Your task to perform on an android device: turn off smart reply in the gmail app Image 0: 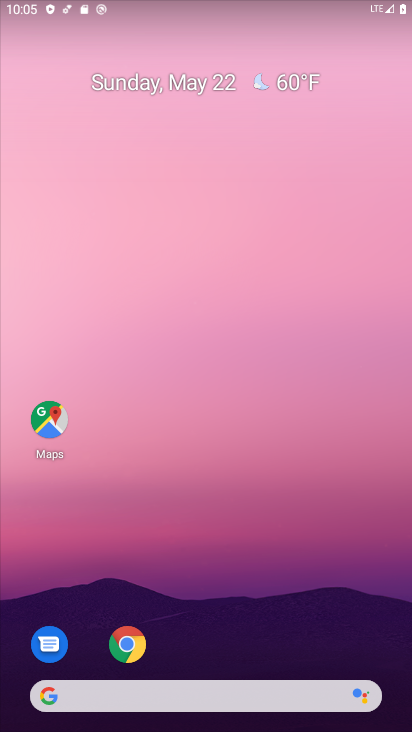
Step 0: drag from (166, 658) to (161, 274)
Your task to perform on an android device: turn off smart reply in the gmail app Image 1: 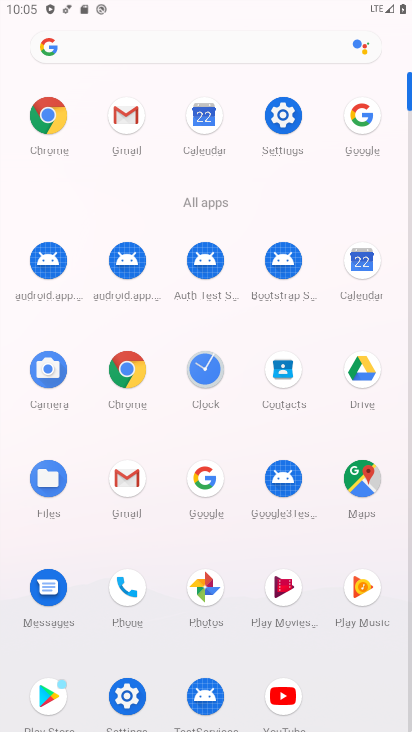
Step 1: click (136, 495)
Your task to perform on an android device: turn off smart reply in the gmail app Image 2: 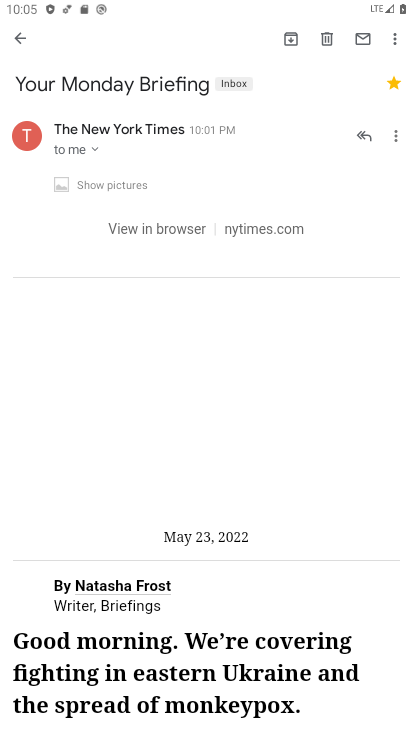
Step 2: click (17, 43)
Your task to perform on an android device: turn off smart reply in the gmail app Image 3: 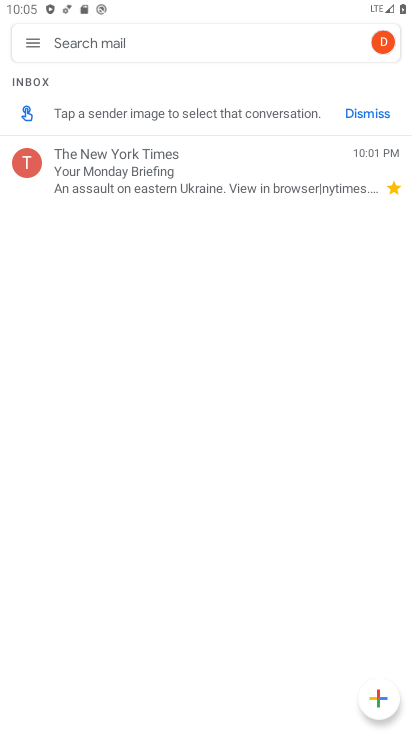
Step 3: click (29, 47)
Your task to perform on an android device: turn off smart reply in the gmail app Image 4: 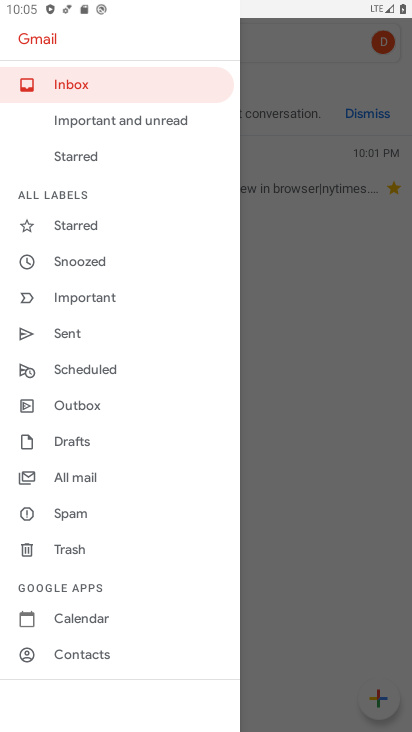
Step 4: drag from (83, 670) to (96, 219)
Your task to perform on an android device: turn off smart reply in the gmail app Image 5: 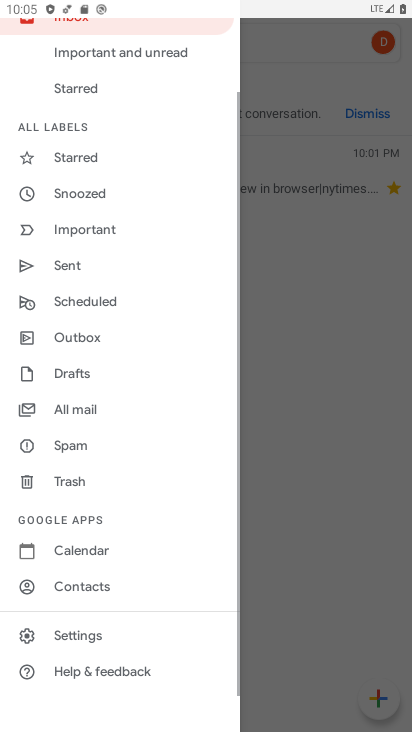
Step 5: click (65, 638)
Your task to perform on an android device: turn off smart reply in the gmail app Image 6: 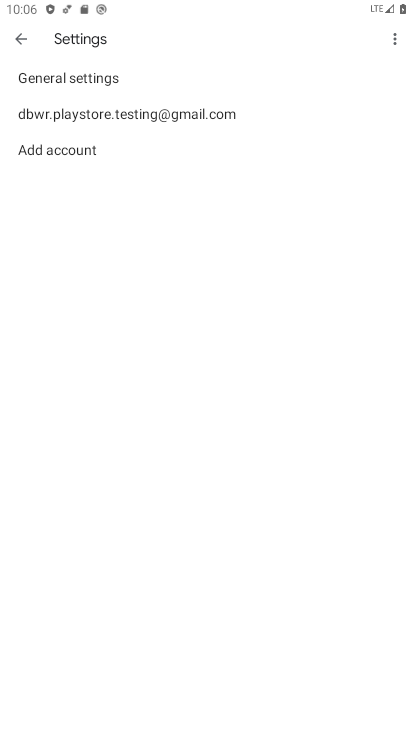
Step 6: click (35, 118)
Your task to perform on an android device: turn off smart reply in the gmail app Image 7: 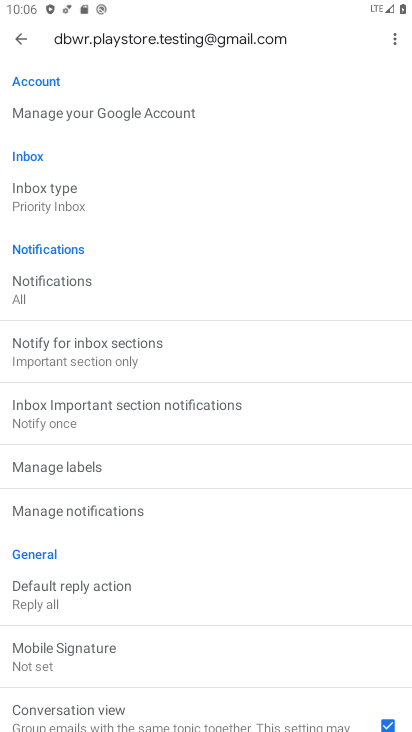
Step 7: drag from (94, 671) to (122, 440)
Your task to perform on an android device: turn off smart reply in the gmail app Image 8: 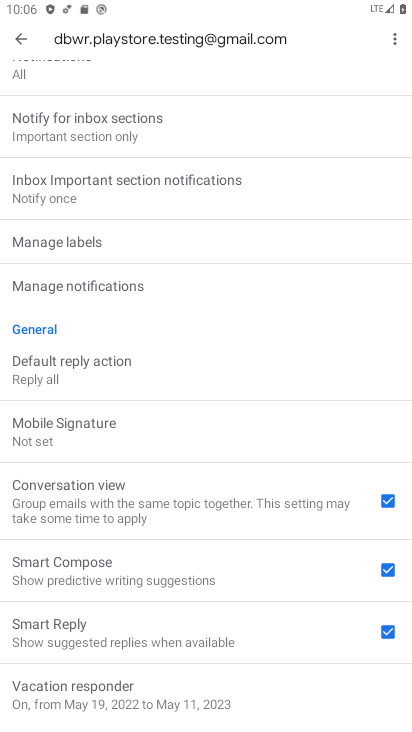
Step 8: drag from (137, 695) to (146, 376)
Your task to perform on an android device: turn off smart reply in the gmail app Image 9: 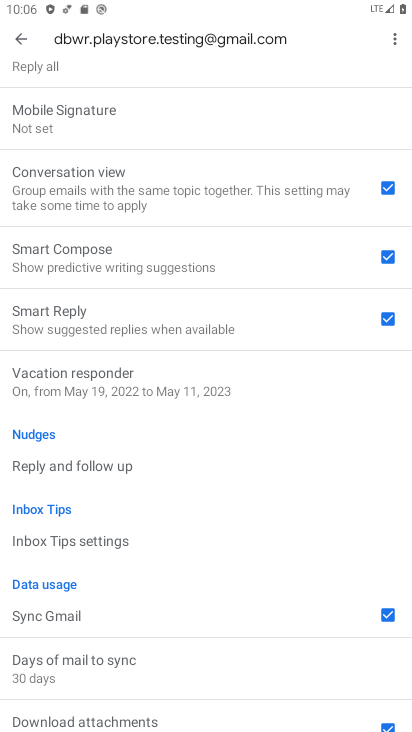
Step 9: drag from (96, 659) to (133, 458)
Your task to perform on an android device: turn off smart reply in the gmail app Image 10: 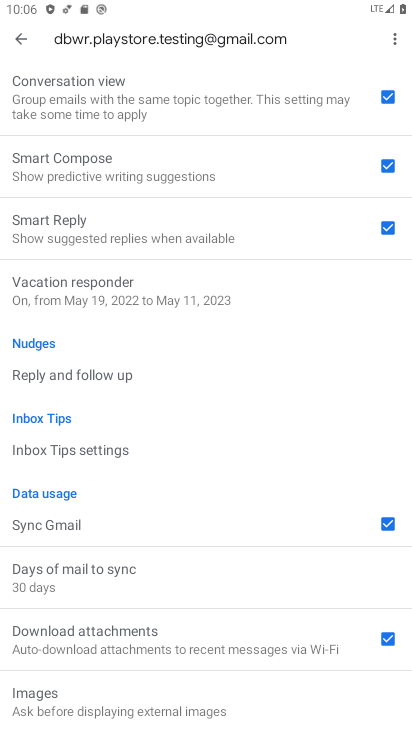
Step 10: drag from (165, 703) to (187, 389)
Your task to perform on an android device: turn off smart reply in the gmail app Image 11: 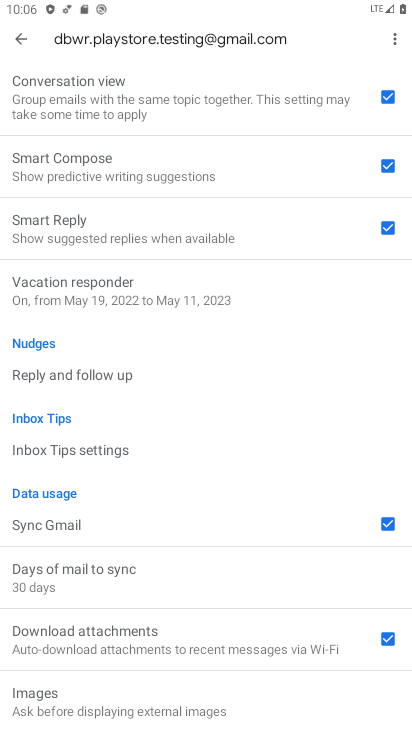
Step 11: drag from (212, 91) to (254, 497)
Your task to perform on an android device: turn off smart reply in the gmail app Image 12: 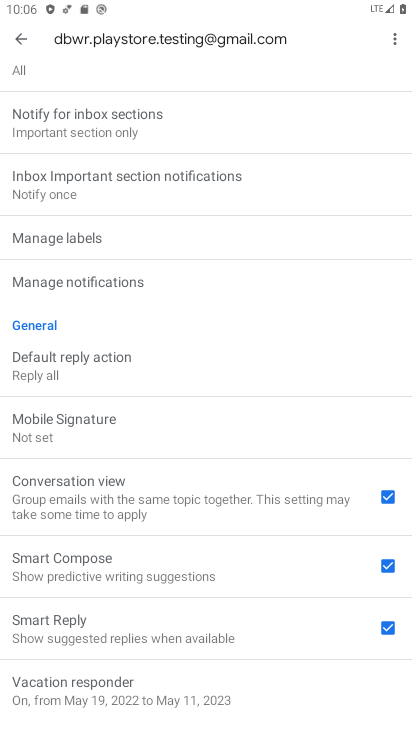
Step 12: drag from (92, 628) to (139, 405)
Your task to perform on an android device: turn off smart reply in the gmail app Image 13: 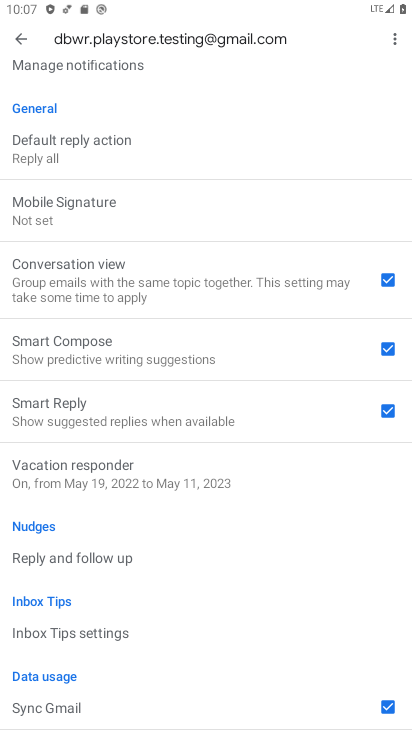
Step 13: click (388, 408)
Your task to perform on an android device: turn off smart reply in the gmail app Image 14: 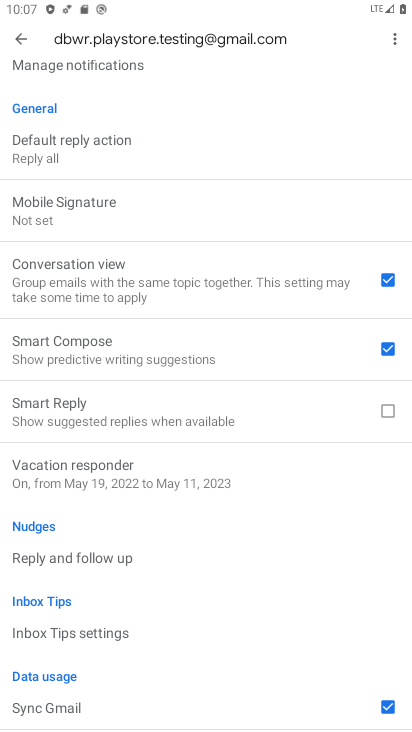
Step 14: task complete